Your task to perform on an android device: turn off data saver in the chrome app Image 0: 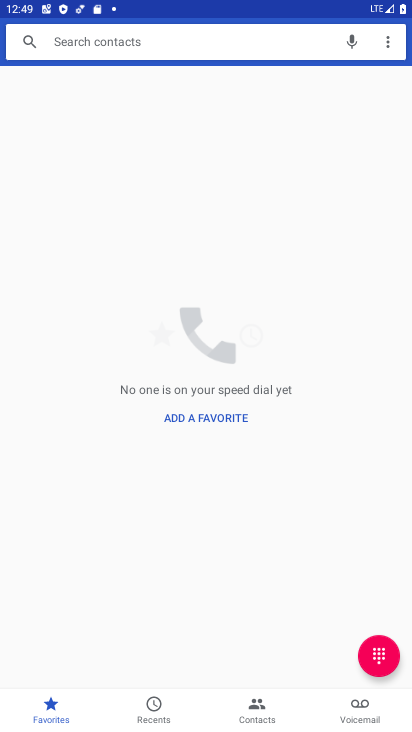
Step 0: press home button
Your task to perform on an android device: turn off data saver in the chrome app Image 1: 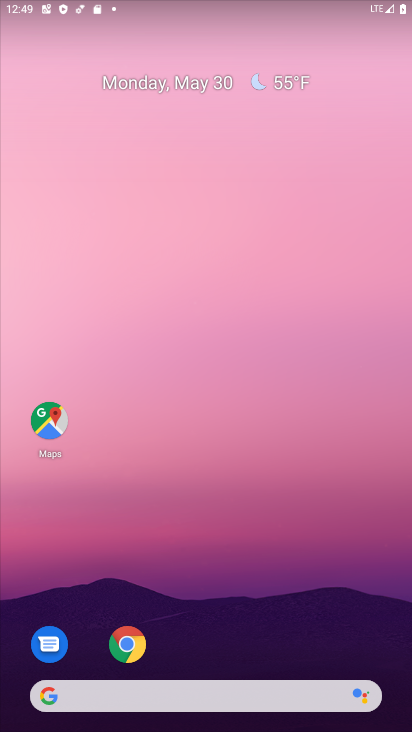
Step 1: drag from (289, 617) to (263, 455)
Your task to perform on an android device: turn off data saver in the chrome app Image 2: 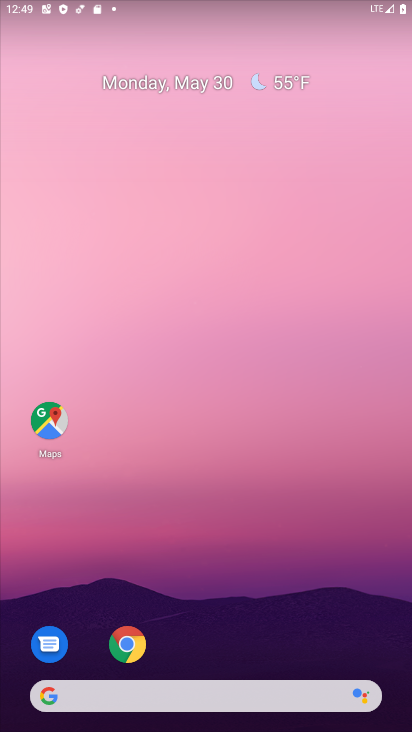
Step 2: click (122, 642)
Your task to perform on an android device: turn off data saver in the chrome app Image 3: 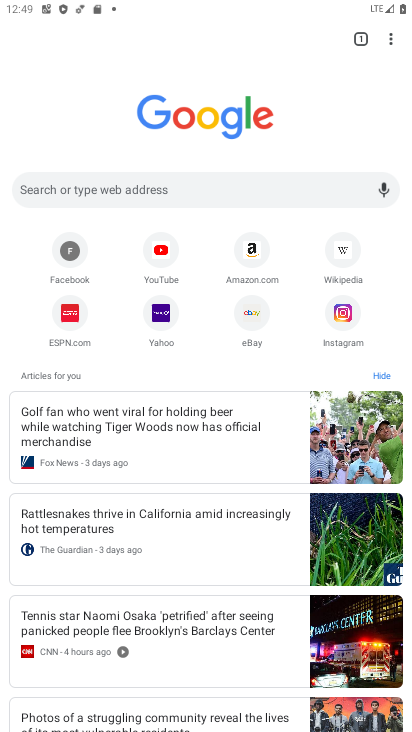
Step 3: click (400, 47)
Your task to perform on an android device: turn off data saver in the chrome app Image 4: 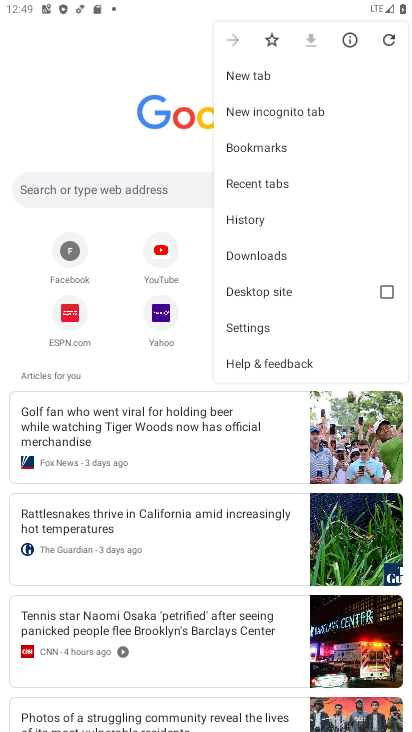
Step 4: click (290, 323)
Your task to perform on an android device: turn off data saver in the chrome app Image 5: 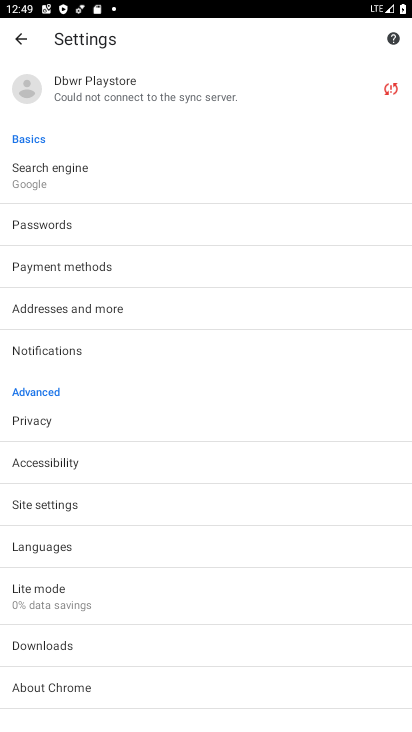
Step 5: click (130, 594)
Your task to perform on an android device: turn off data saver in the chrome app Image 6: 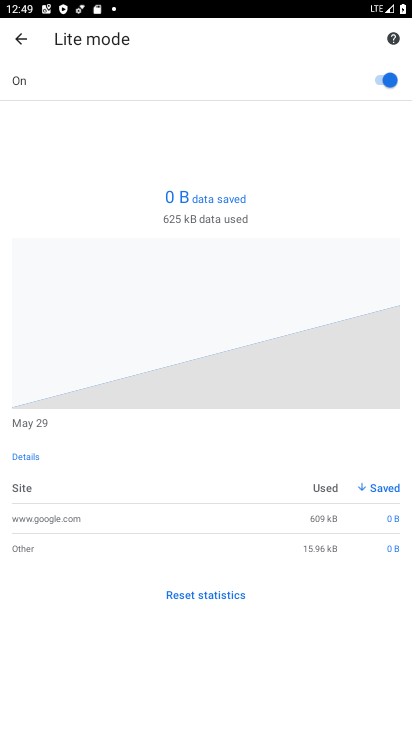
Step 6: click (375, 73)
Your task to perform on an android device: turn off data saver in the chrome app Image 7: 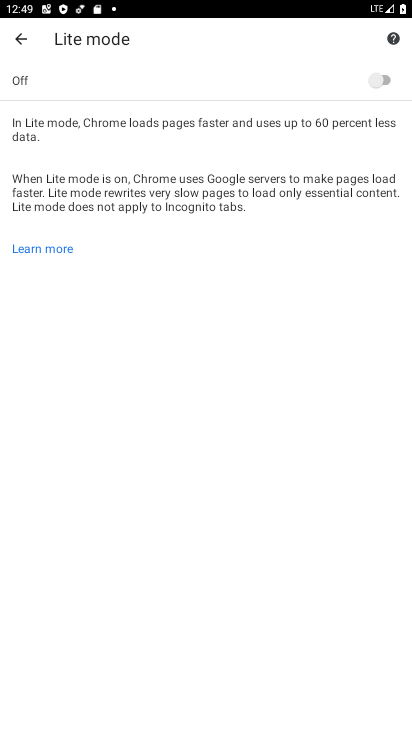
Step 7: task complete